Your task to perform on an android device: clear history in the chrome app Image 0: 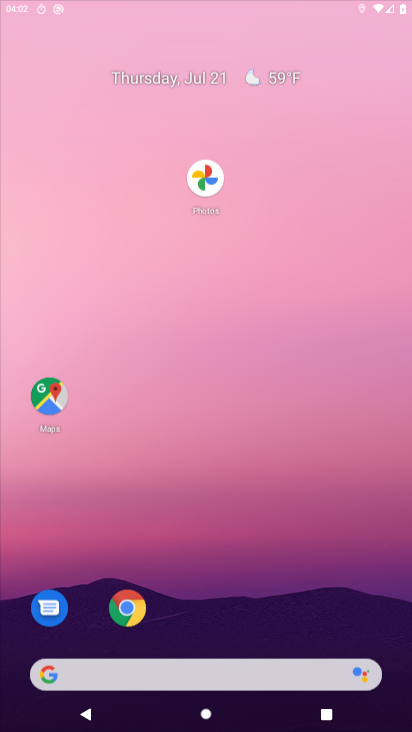
Step 0: click (225, 84)
Your task to perform on an android device: clear history in the chrome app Image 1: 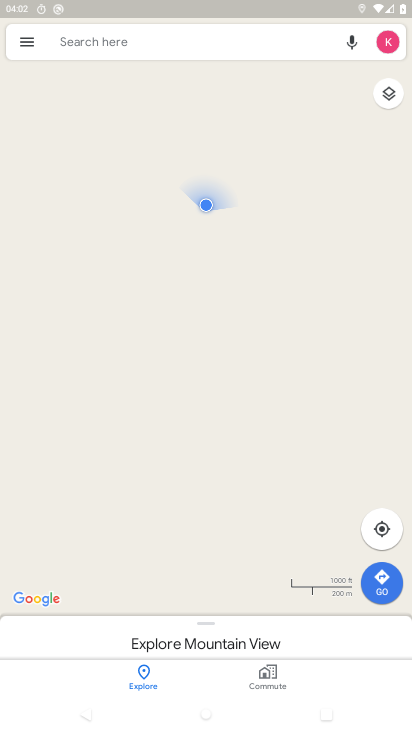
Step 1: press home button
Your task to perform on an android device: clear history in the chrome app Image 2: 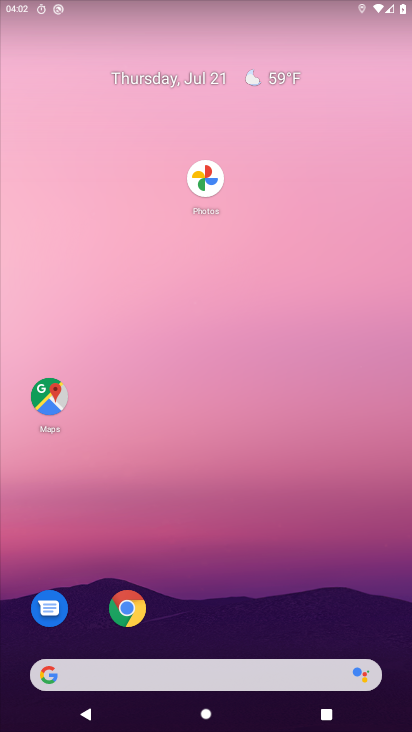
Step 2: drag from (211, 625) to (204, 138)
Your task to perform on an android device: clear history in the chrome app Image 3: 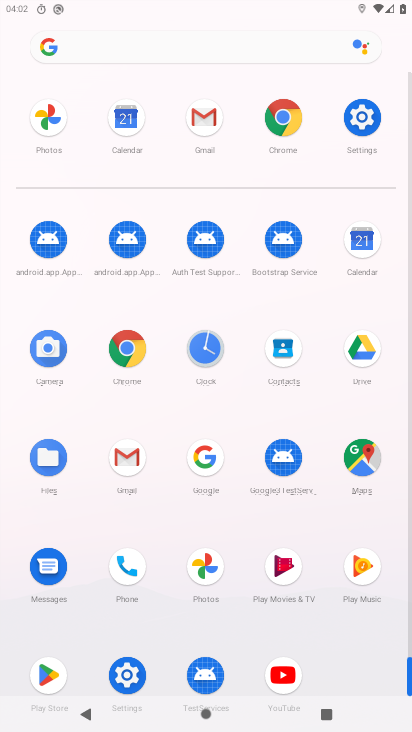
Step 3: click (275, 114)
Your task to perform on an android device: clear history in the chrome app Image 4: 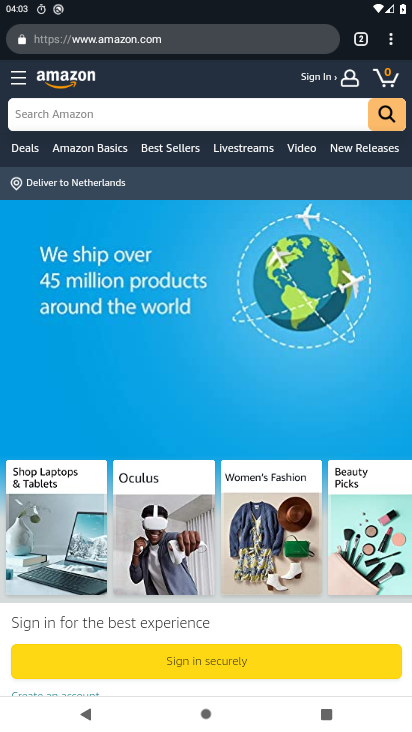
Step 4: click (388, 37)
Your task to perform on an android device: clear history in the chrome app Image 5: 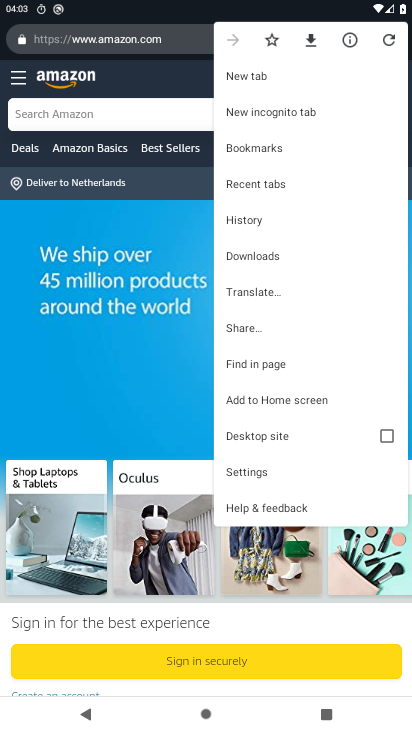
Step 5: click (268, 217)
Your task to perform on an android device: clear history in the chrome app Image 6: 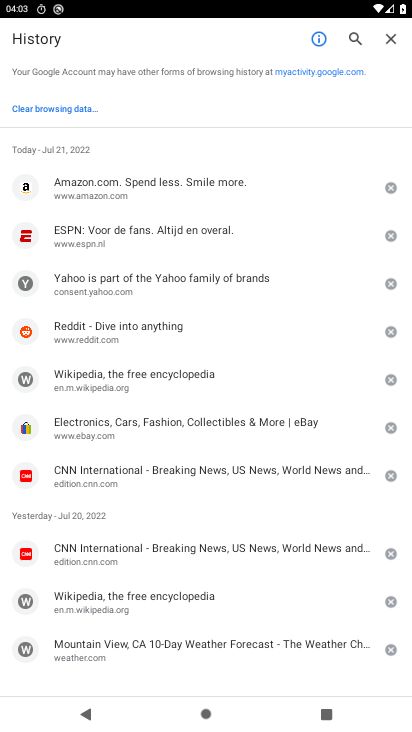
Step 6: click (39, 106)
Your task to perform on an android device: clear history in the chrome app Image 7: 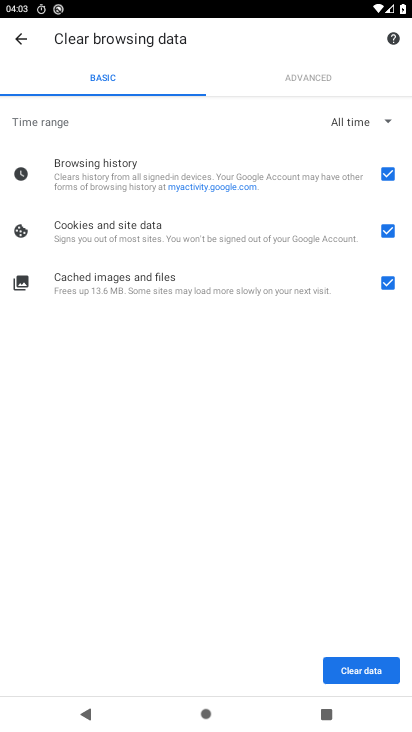
Step 7: click (363, 666)
Your task to perform on an android device: clear history in the chrome app Image 8: 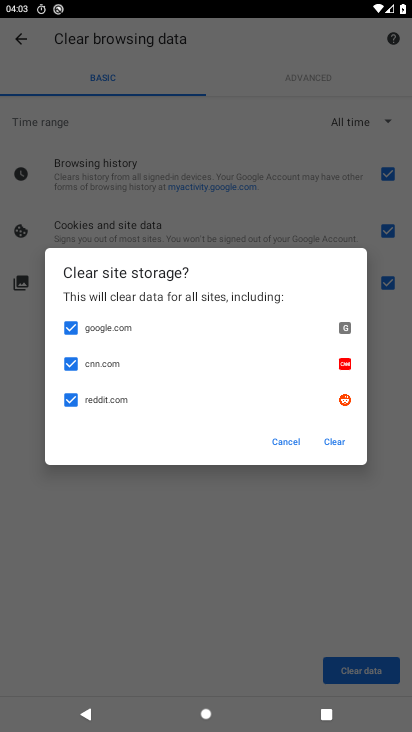
Step 8: click (334, 438)
Your task to perform on an android device: clear history in the chrome app Image 9: 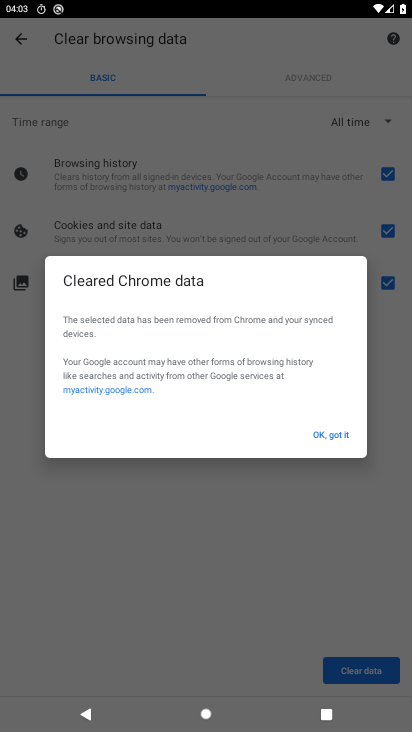
Step 9: click (325, 433)
Your task to perform on an android device: clear history in the chrome app Image 10: 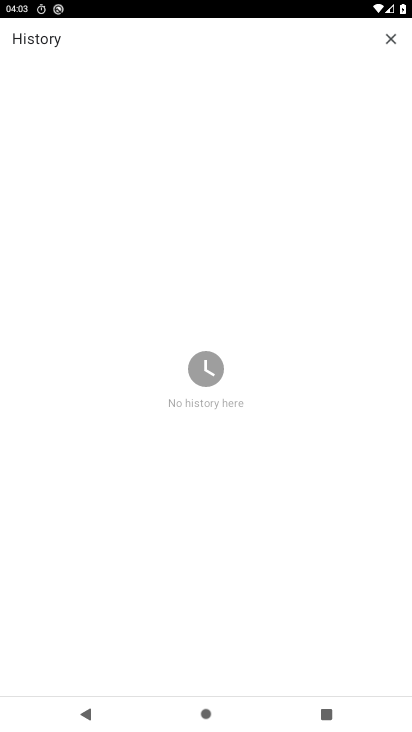
Step 10: task complete